Your task to perform on an android device: Clear all items from cart on walmart. Search for "razer naga" on walmart, select the first entry, and add it to the cart. Image 0: 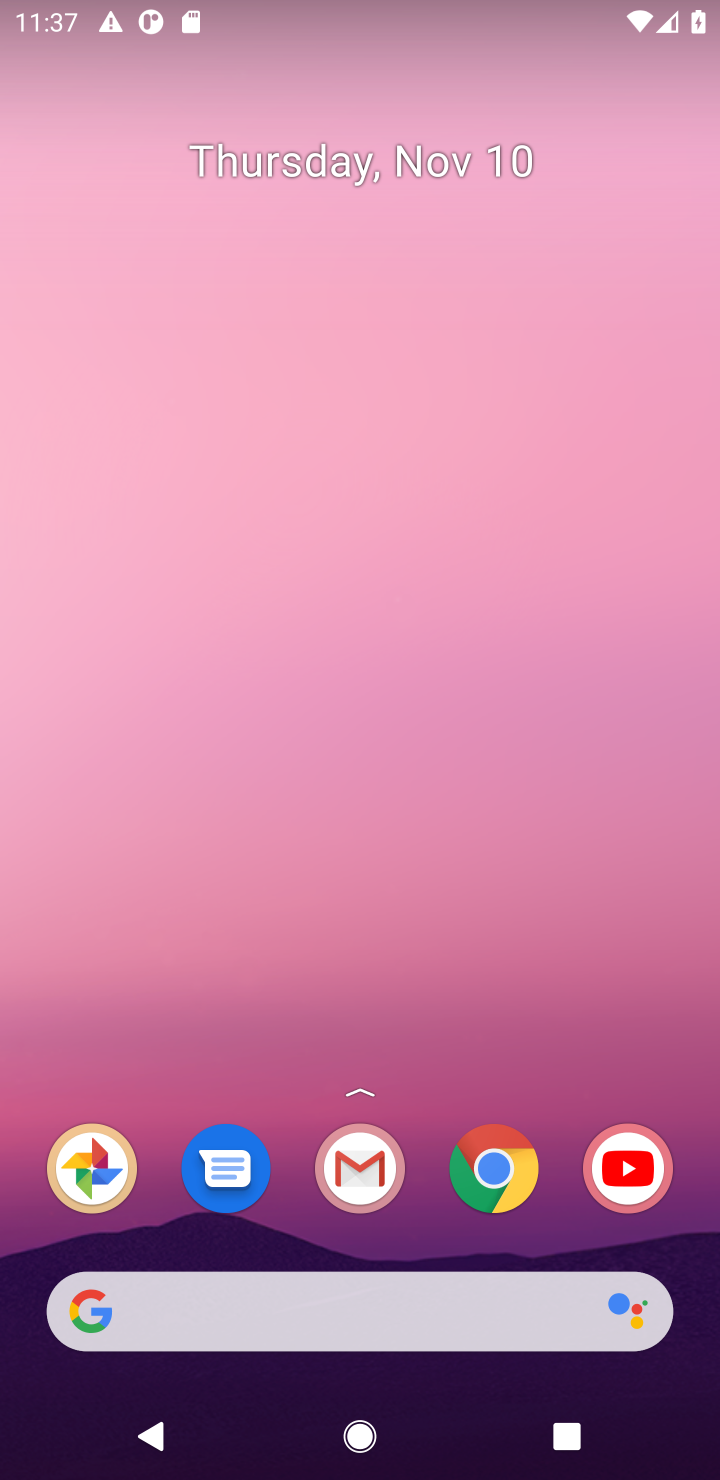
Step 0: click (492, 1163)
Your task to perform on an android device: Clear all items from cart on walmart. Search for "razer naga" on walmart, select the first entry, and add it to the cart. Image 1: 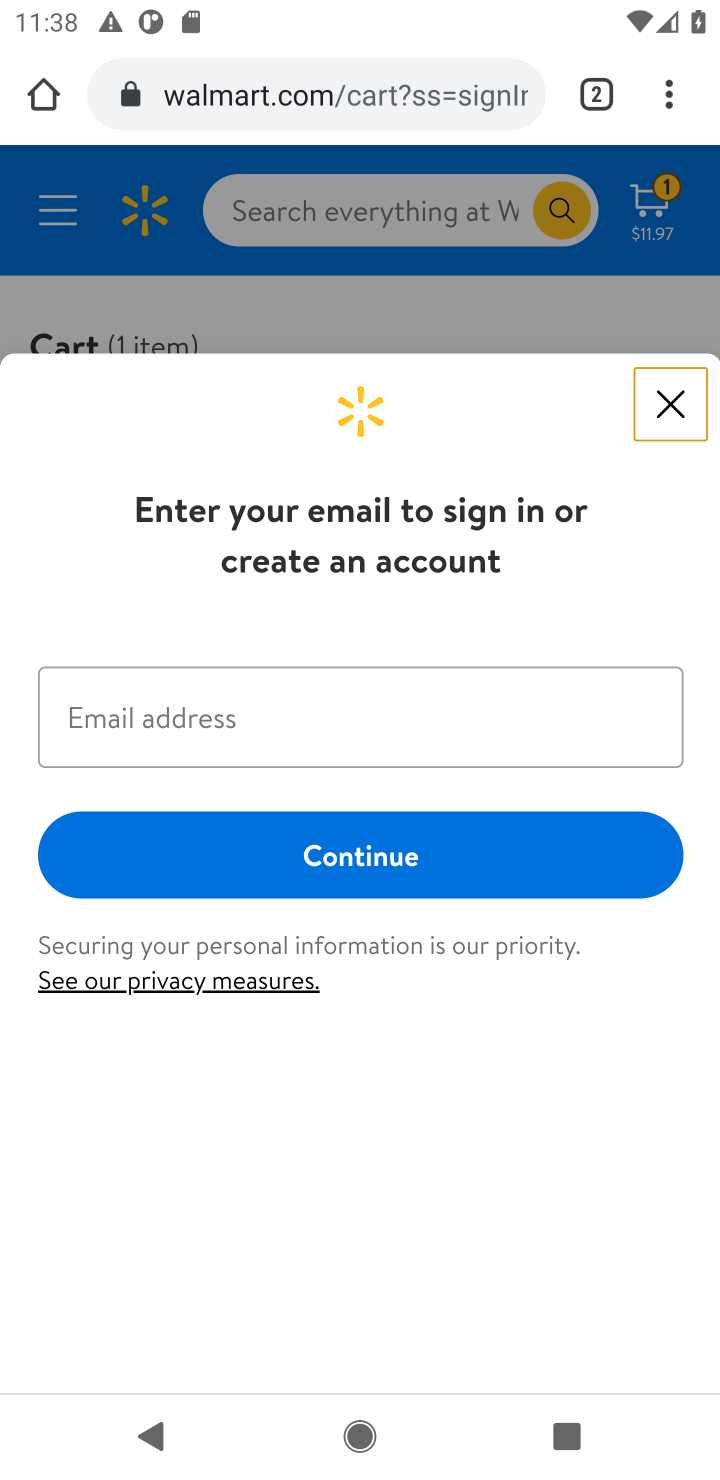
Step 1: click (672, 425)
Your task to perform on an android device: Clear all items from cart on walmart. Search for "razer naga" on walmart, select the first entry, and add it to the cart. Image 2: 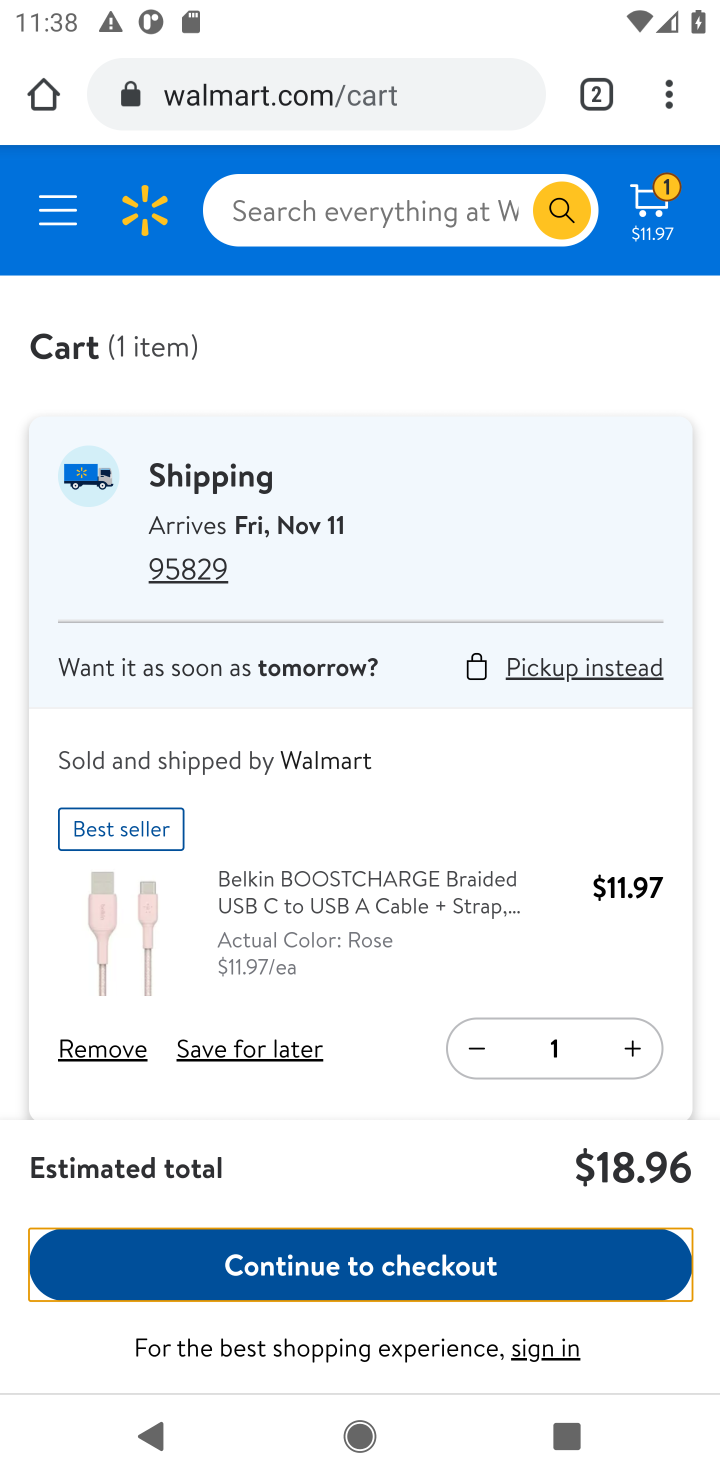
Step 2: click (659, 217)
Your task to perform on an android device: Clear all items from cart on walmart. Search for "razer naga" on walmart, select the first entry, and add it to the cart. Image 3: 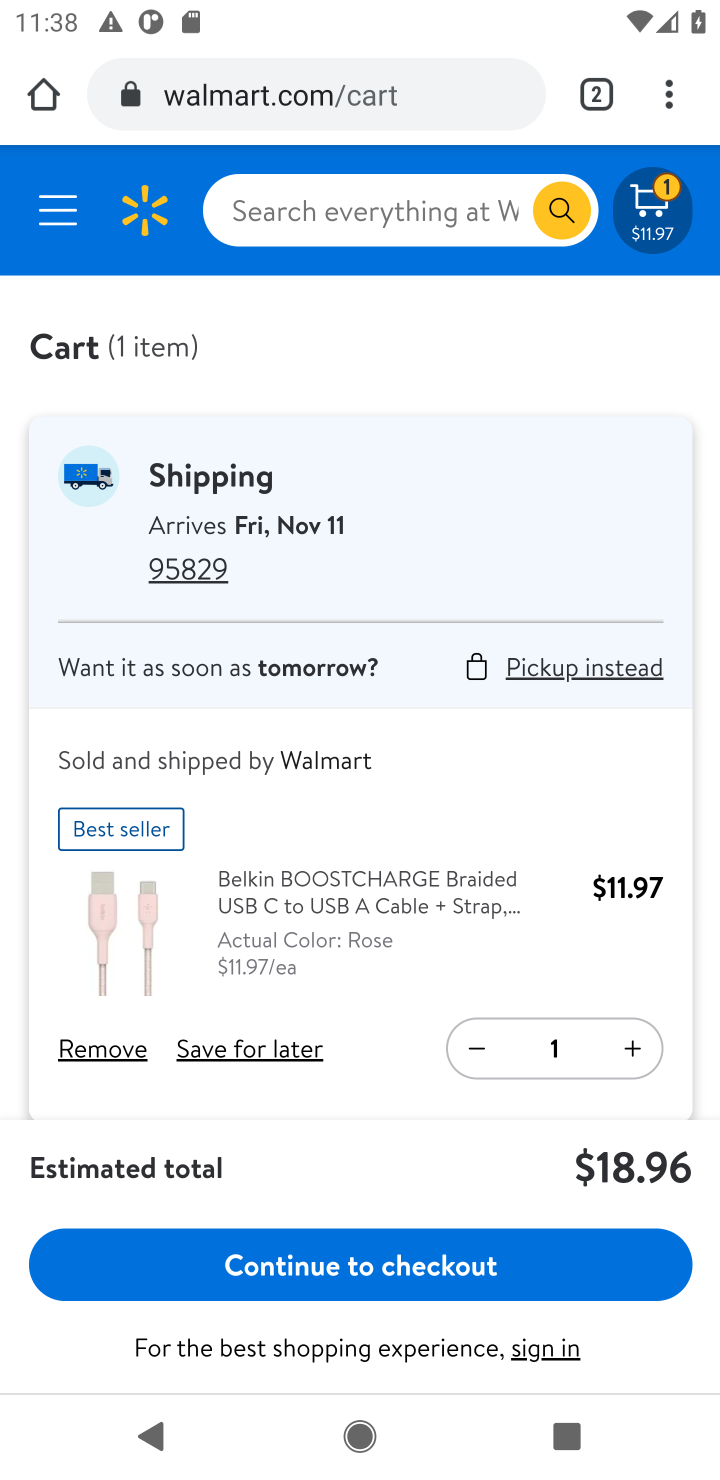
Step 3: click (109, 1055)
Your task to perform on an android device: Clear all items from cart on walmart. Search for "razer naga" on walmart, select the first entry, and add it to the cart. Image 4: 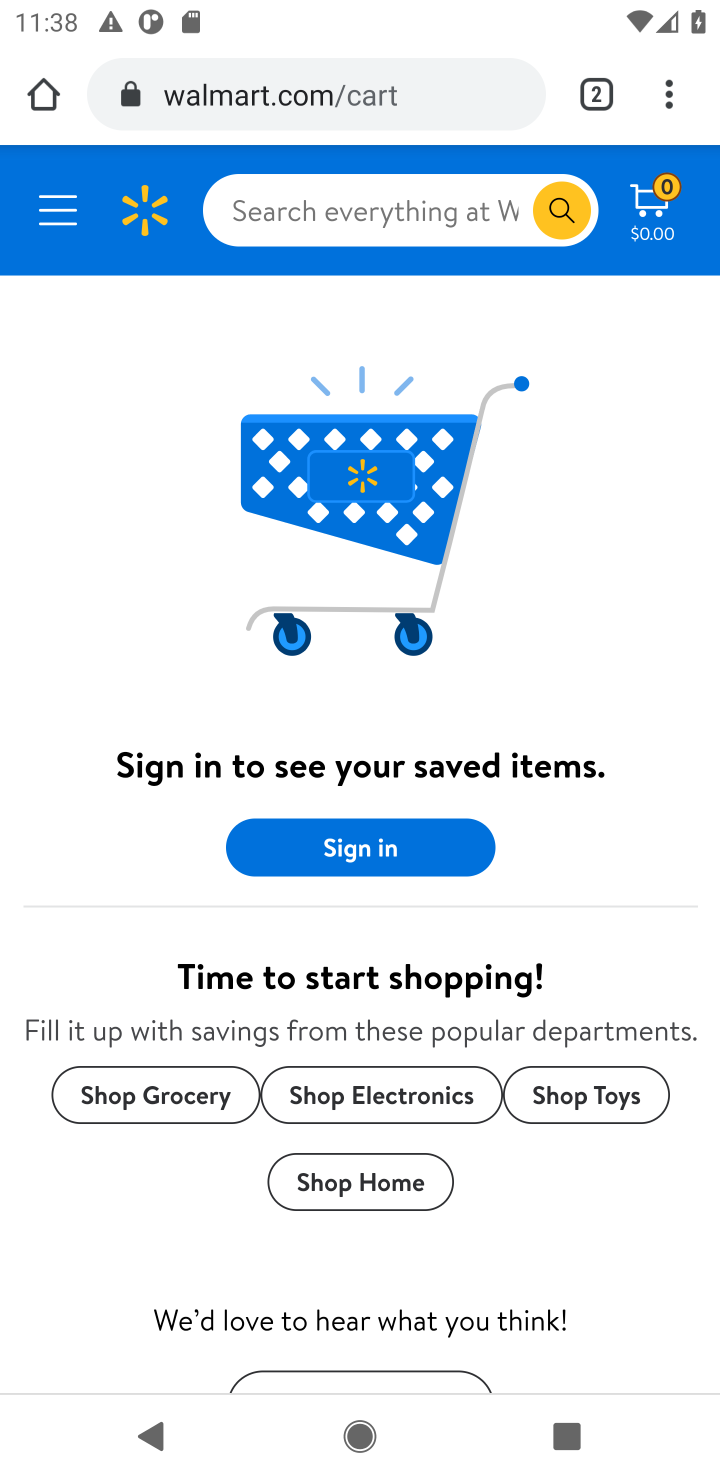
Step 4: click (299, 209)
Your task to perform on an android device: Clear all items from cart on walmart. Search for "razer naga" on walmart, select the first entry, and add it to the cart. Image 5: 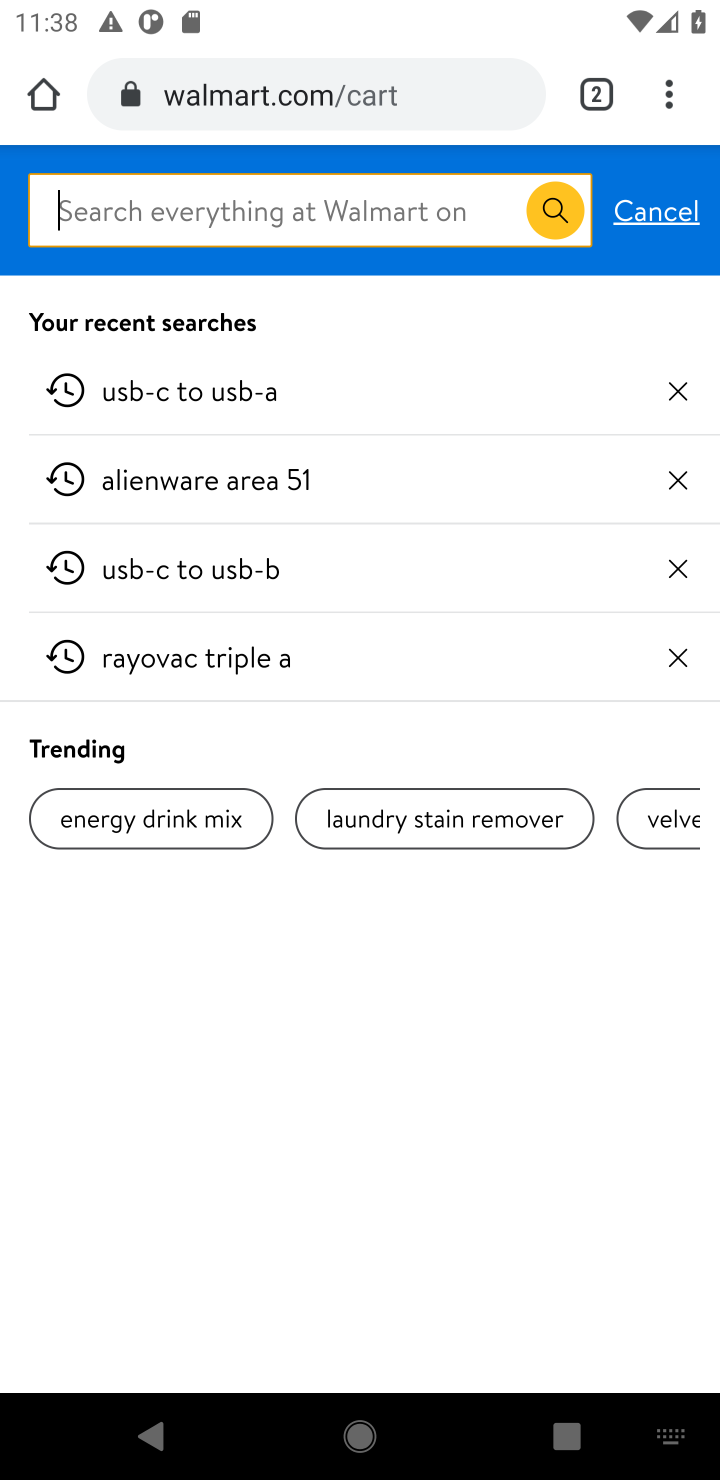
Step 5: type "razer naga"
Your task to perform on an android device: Clear all items from cart on walmart. Search for "razer naga" on walmart, select the first entry, and add it to the cart. Image 6: 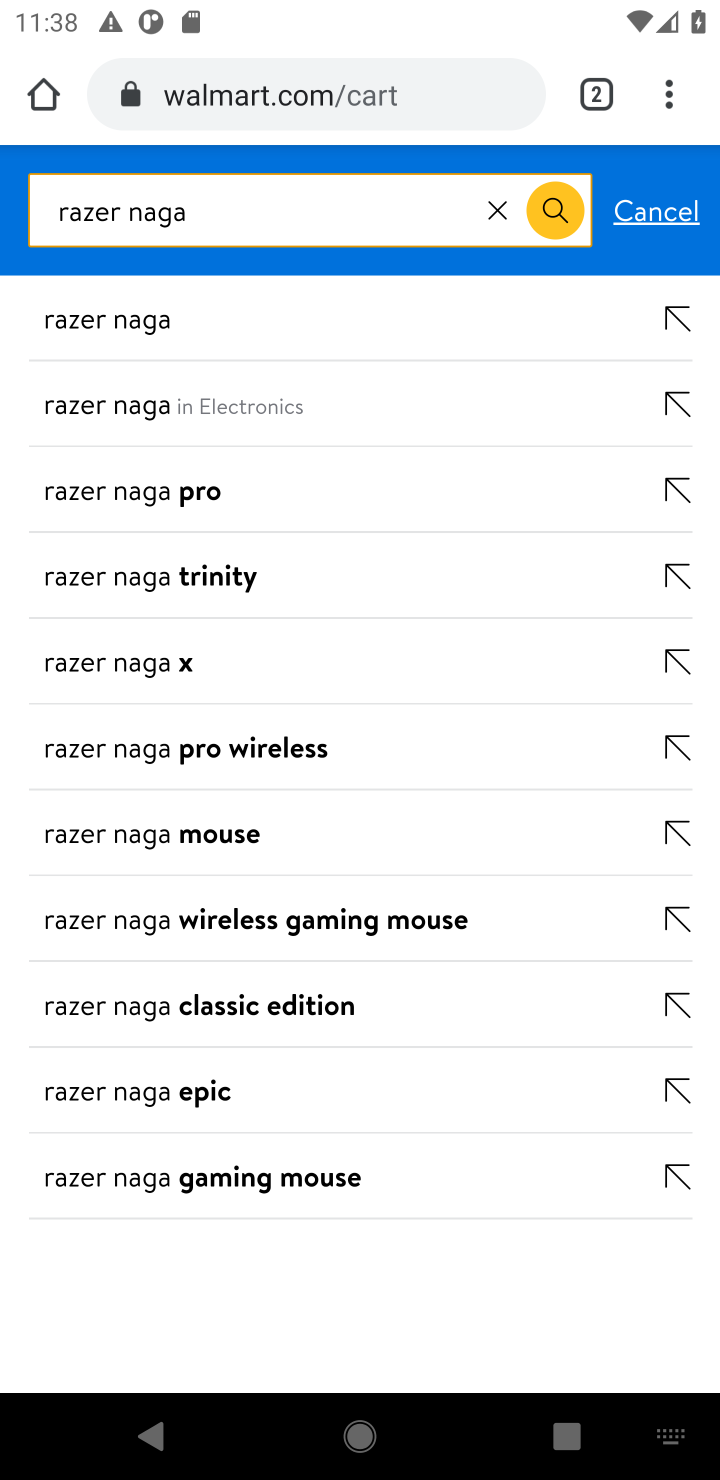
Step 6: click (103, 328)
Your task to perform on an android device: Clear all items from cart on walmart. Search for "razer naga" on walmart, select the first entry, and add it to the cart. Image 7: 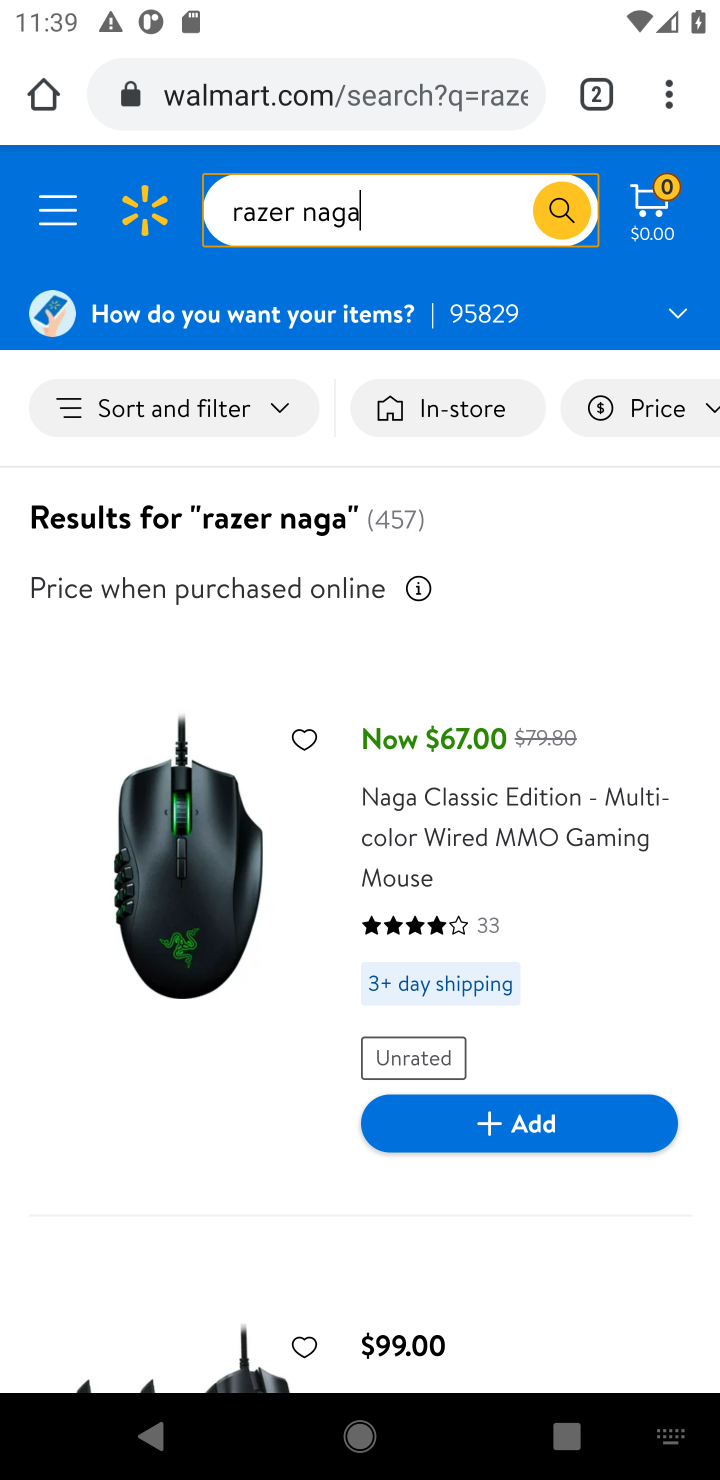
Step 7: task complete